Your task to perform on an android device: open app "DuckDuckGo Privacy Browser" (install if not already installed) Image 0: 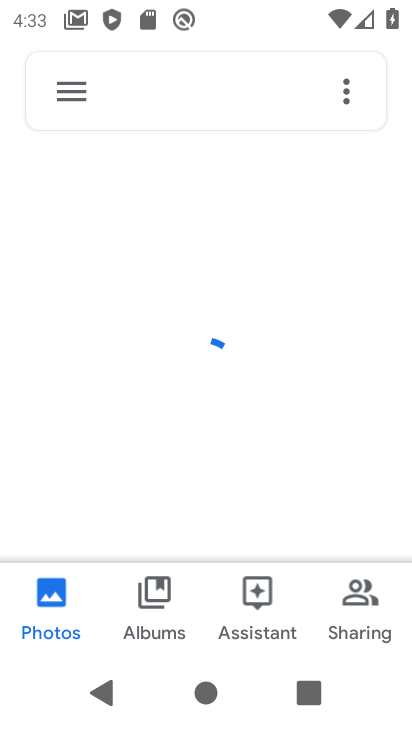
Step 0: press home button
Your task to perform on an android device: open app "DuckDuckGo Privacy Browser" (install if not already installed) Image 1: 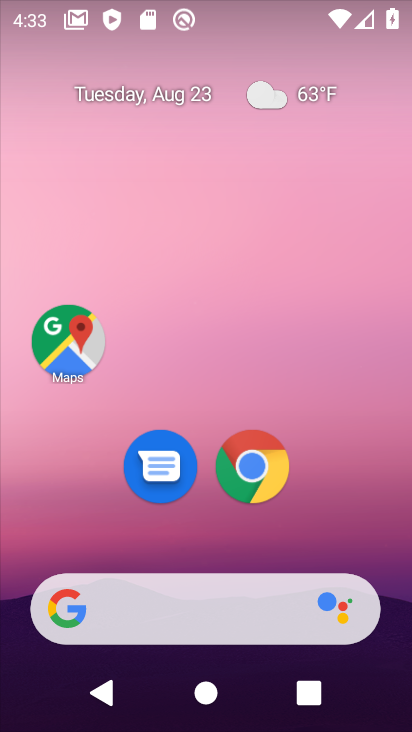
Step 1: drag from (183, 543) to (161, 81)
Your task to perform on an android device: open app "DuckDuckGo Privacy Browser" (install if not already installed) Image 2: 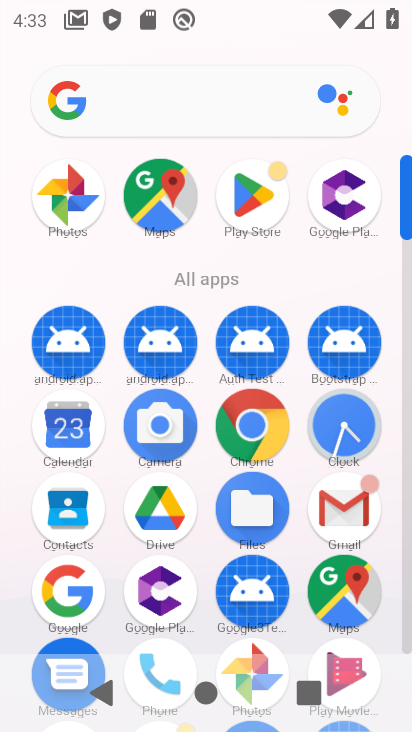
Step 2: click (249, 204)
Your task to perform on an android device: open app "DuckDuckGo Privacy Browser" (install if not already installed) Image 3: 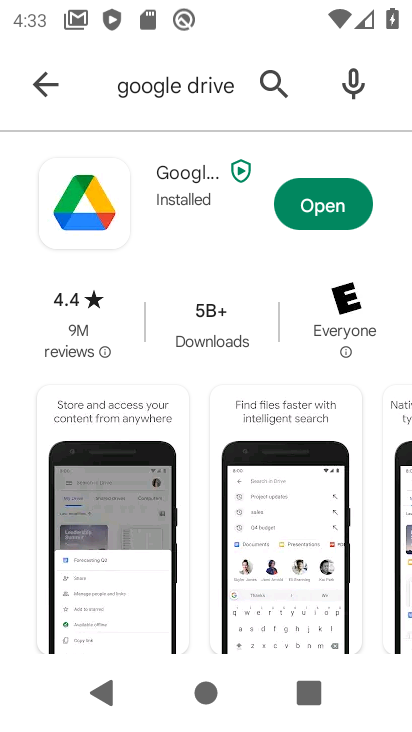
Step 3: click (177, 92)
Your task to perform on an android device: open app "DuckDuckGo Privacy Browser" (install if not already installed) Image 4: 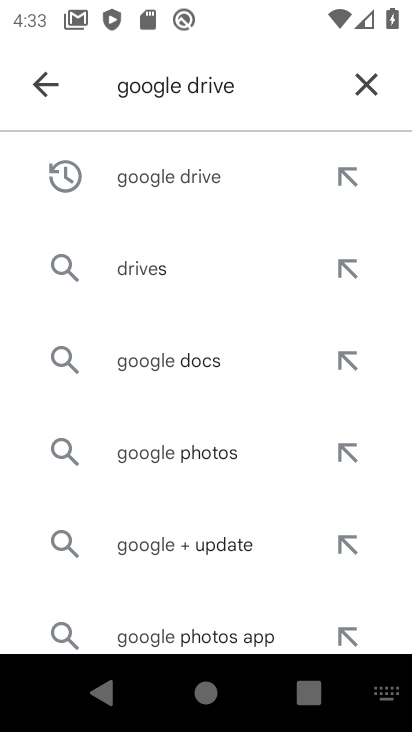
Step 4: click (368, 84)
Your task to perform on an android device: open app "DuckDuckGo Privacy Browser" (install if not already installed) Image 5: 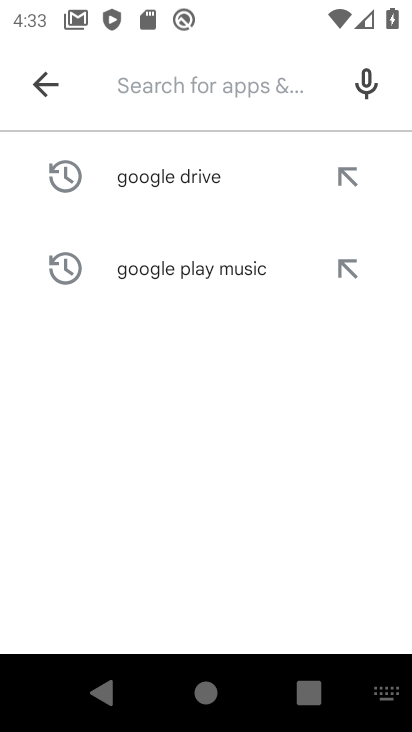
Step 5: type "duckduckgo"
Your task to perform on an android device: open app "DuckDuckGo Privacy Browser" (install if not already installed) Image 6: 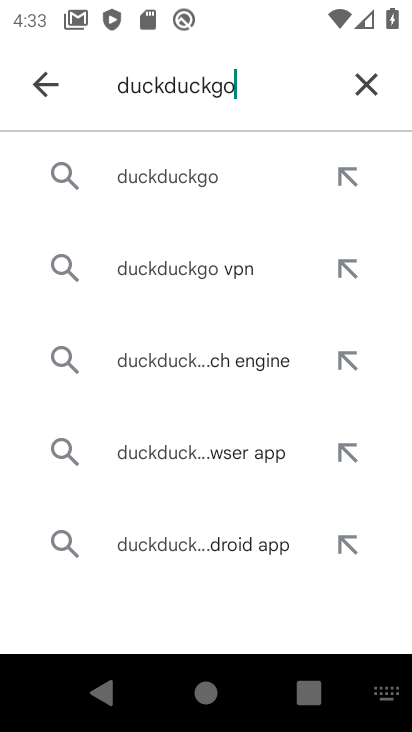
Step 6: click (154, 173)
Your task to perform on an android device: open app "DuckDuckGo Privacy Browser" (install if not already installed) Image 7: 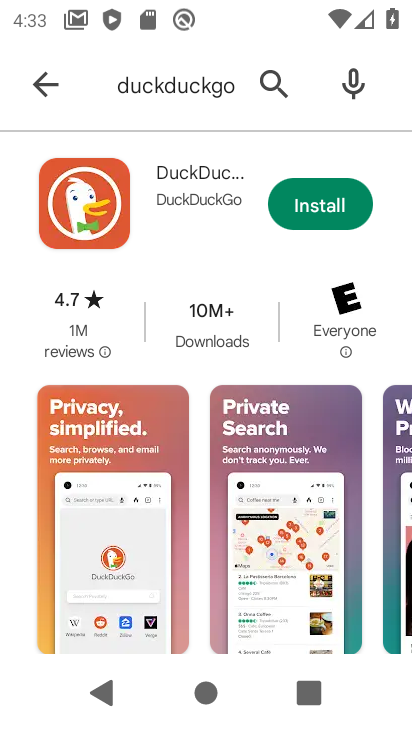
Step 7: click (335, 208)
Your task to perform on an android device: open app "DuckDuckGo Privacy Browser" (install if not already installed) Image 8: 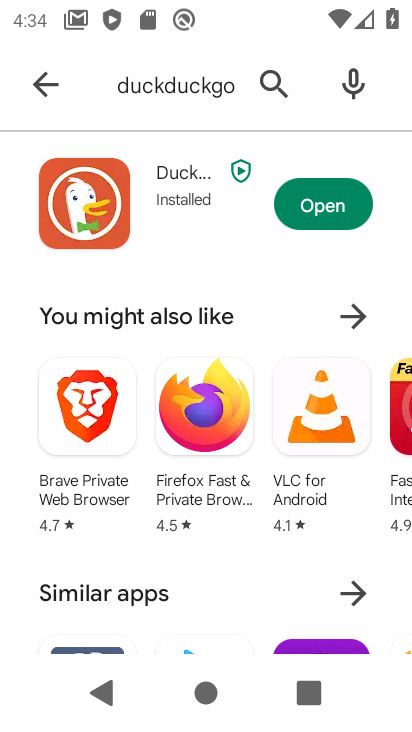
Step 8: click (320, 196)
Your task to perform on an android device: open app "DuckDuckGo Privacy Browser" (install if not already installed) Image 9: 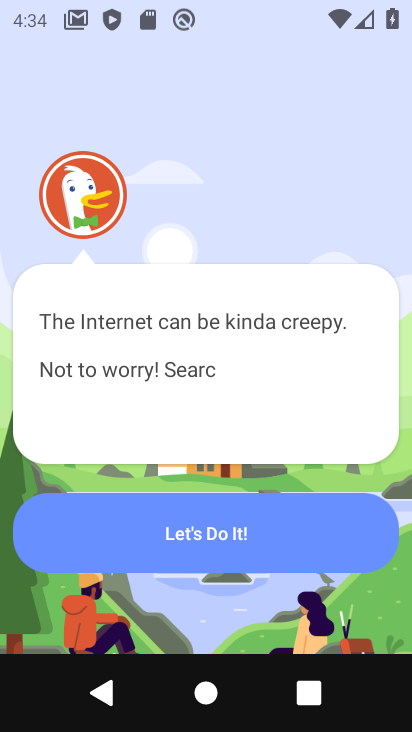
Step 9: click (199, 546)
Your task to perform on an android device: open app "DuckDuckGo Privacy Browser" (install if not already installed) Image 10: 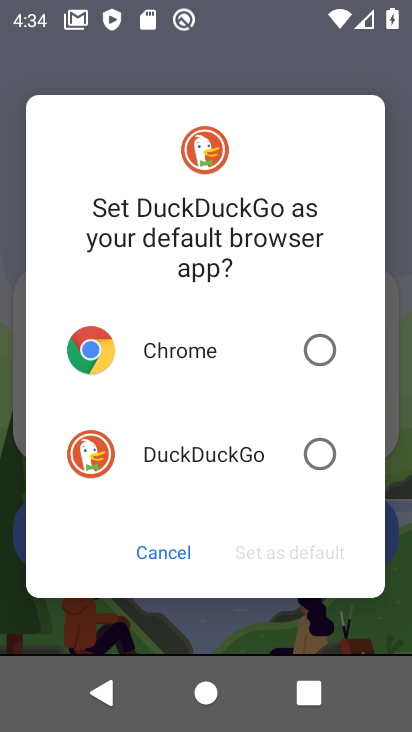
Step 10: click (239, 454)
Your task to perform on an android device: open app "DuckDuckGo Privacy Browser" (install if not already installed) Image 11: 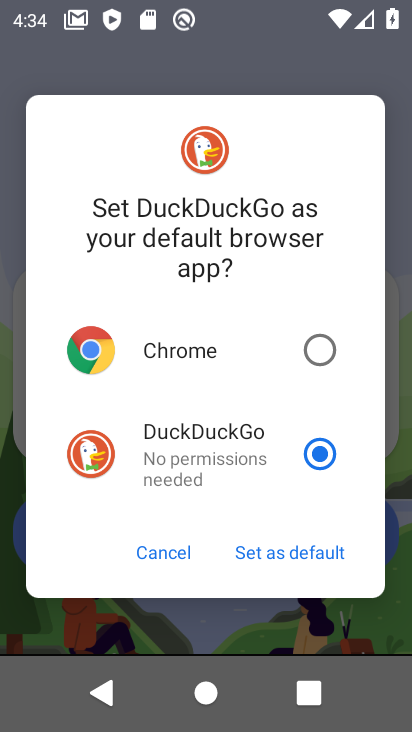
Step 11: click (288, 551)
Your task to perform on an android device: open app "DuckDuckGo Privacy Browser" (install if not already installed) Image 12: 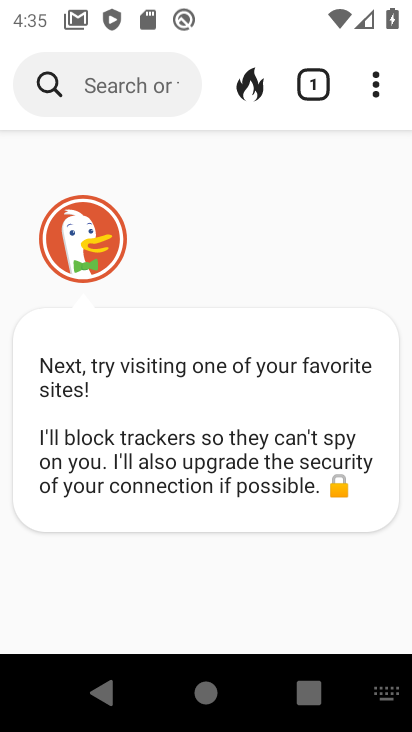
Step 12: task complete